Your task to perform on an android device: turn off priority inbox in the gmail app Image 0: 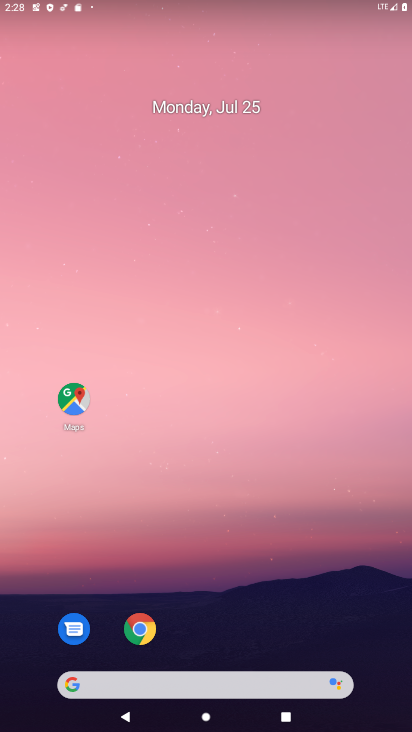
Step 0: click (286, 153)
Your task to perform on an android device: turn off priority inbox in the gmail app Image 1: 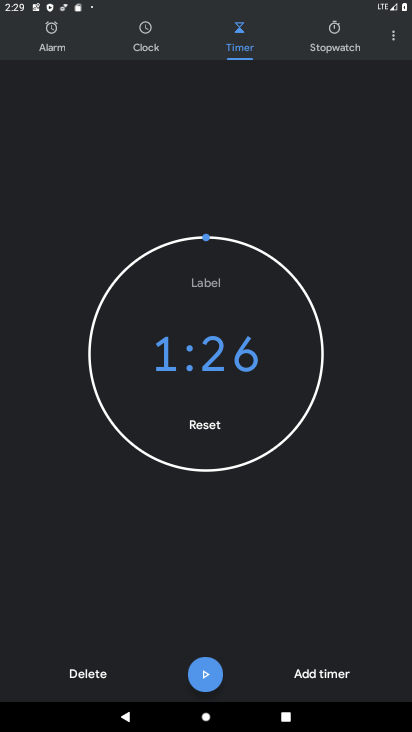
Step 1: press home button
Your task to perform on an android device: turn off priority inbox in the gmail app Image 2: 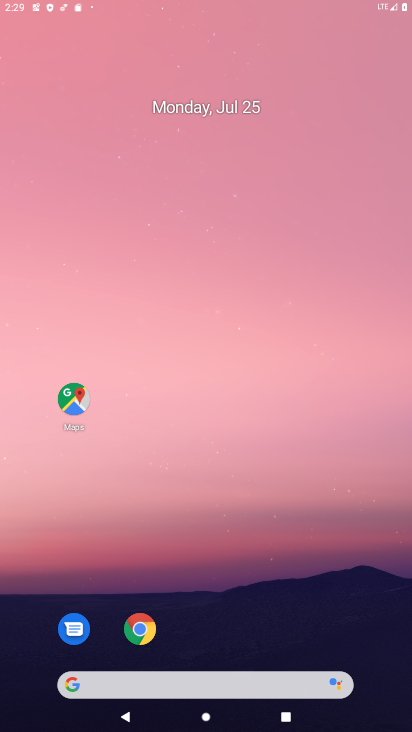
Step 2: drag from (173, 607) to (285, 55)
Your task to perform on an android device: turn off priority inbox in the gmail app Image 3: 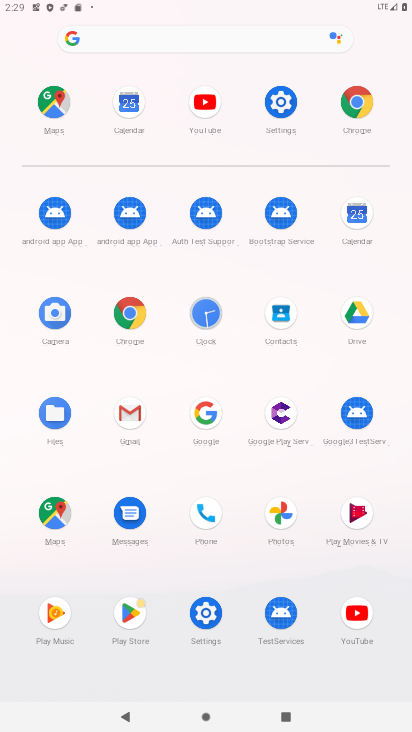
Step 3: click (126, 410)
Your task to perform on an android device: turn off priority inbox in the gmail app Image 4: 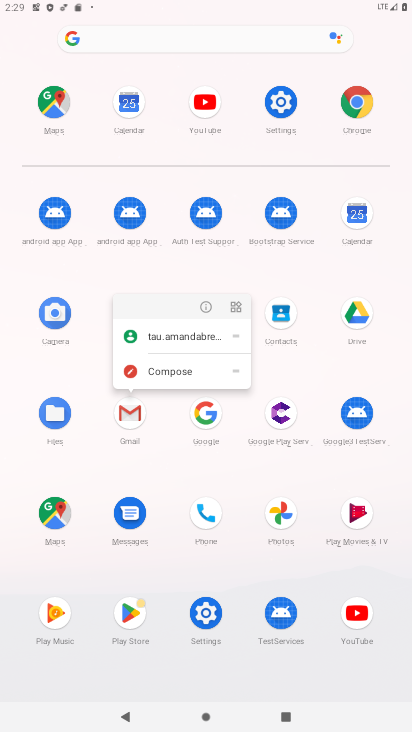
Step 4: click (196, 307)
Your task to perform on an android device: turn off priority inbox in the gmail app Image 5: 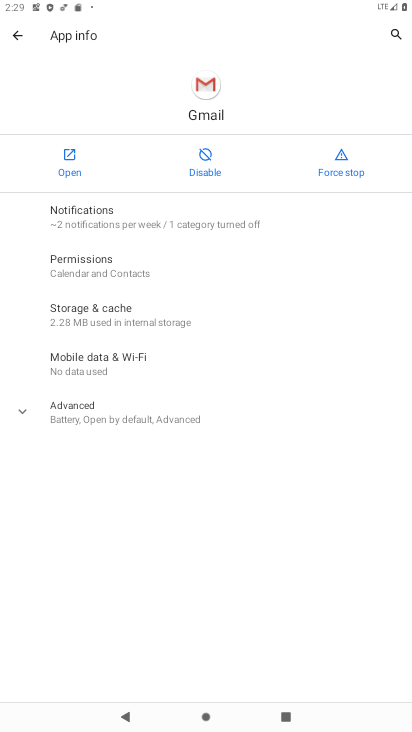
Step 5: click (68, 160)
Your task to perform on an android device: turn off priority inbox in the gmail app Image 6: 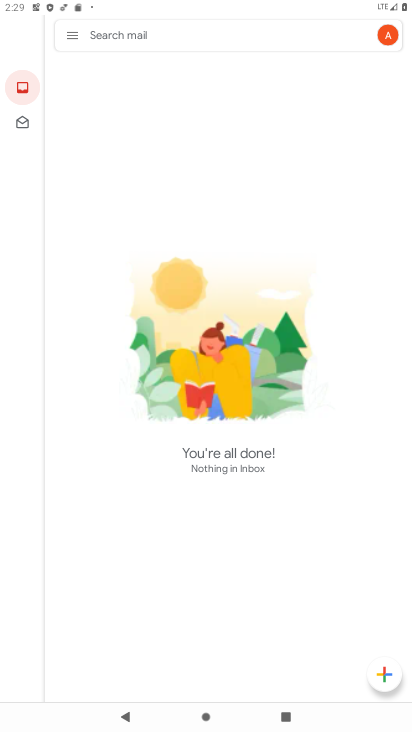
Step 6: click (70, 34)
Your task to perform on an android device: turn off priority inbox in the gmail app Image 7: 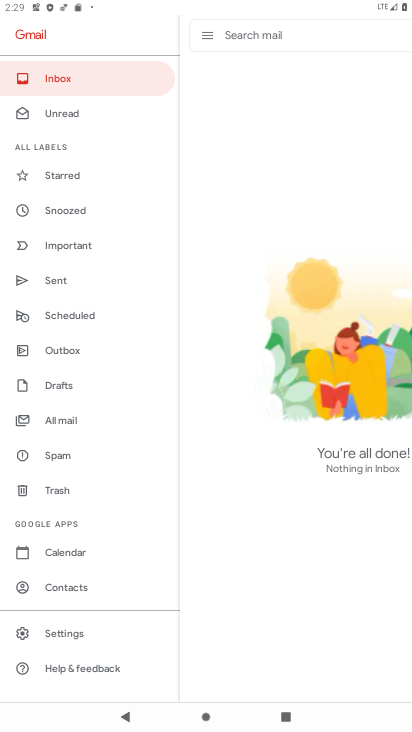
Step 7: click (40, 616)
Your task to perform on an android device: turn off priority inbox in the gmail app Image 8: 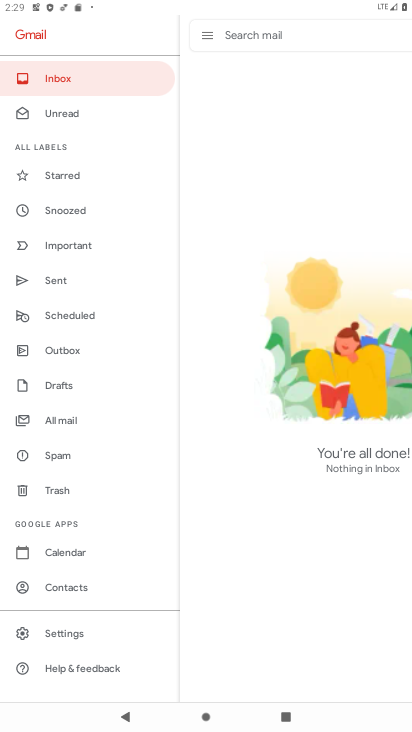
Step 8: click (74, 634)
Your task to perform on an android device: turn off priority inbox in the gmail app Image 9: 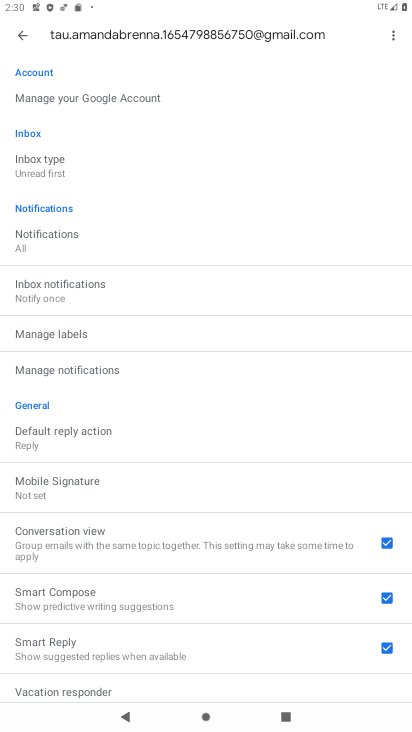
Step 9: click (82, 167)
Your task to perform on an android device: turn off priority inbox in the gmail app Image 10: 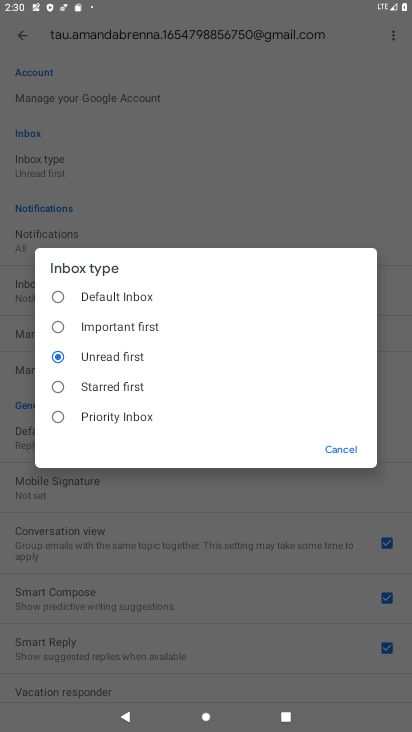
Step 10: click (72, 296)
Your task to perform on an android device: turn off priority inbox in the gmail app Image 11: 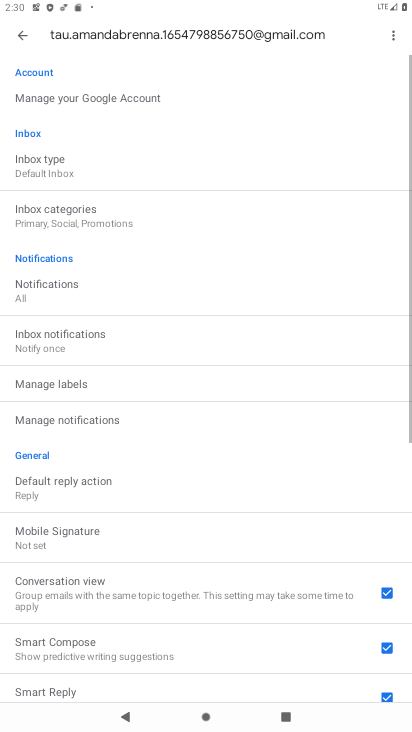
Step 11: task complete